Your task to perform on an android device: Check the weather Image 0: 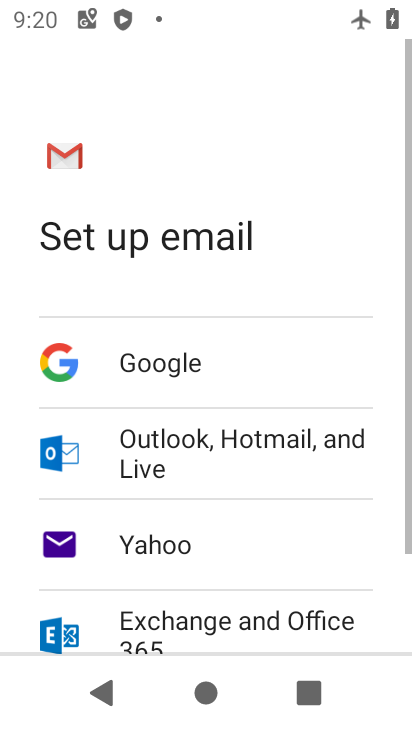
Step 0: press home button
Your task to perform on an android device: Check the weather Image 1: 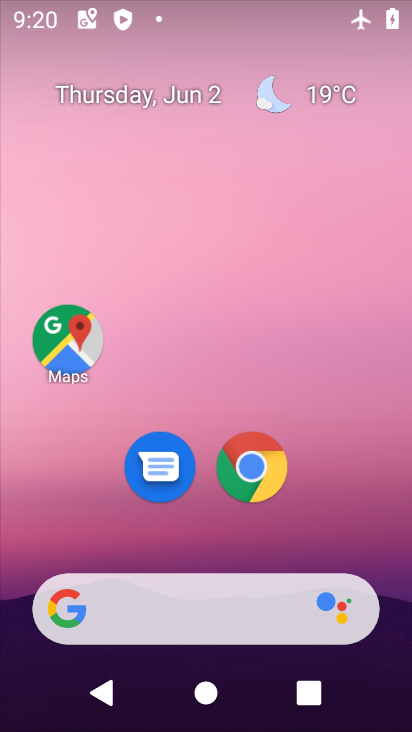
Step 1: drag from (205, 570) to (176, 116)
Your task to perform on an android device: Check the weather Image 2: 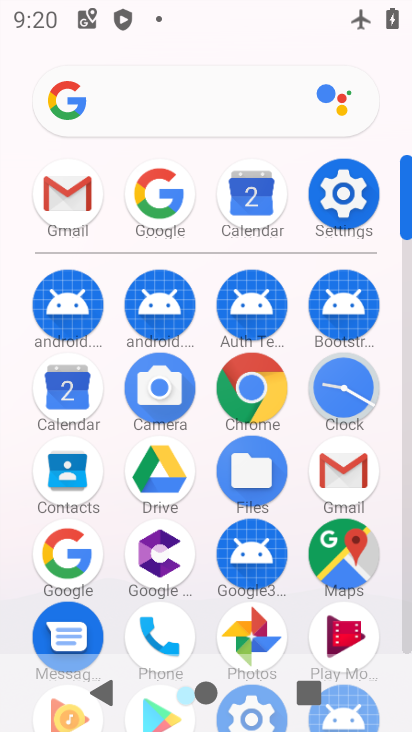
Step 2: click (79, 561)
Your task to perform on an android device: Check the weather Image 3: 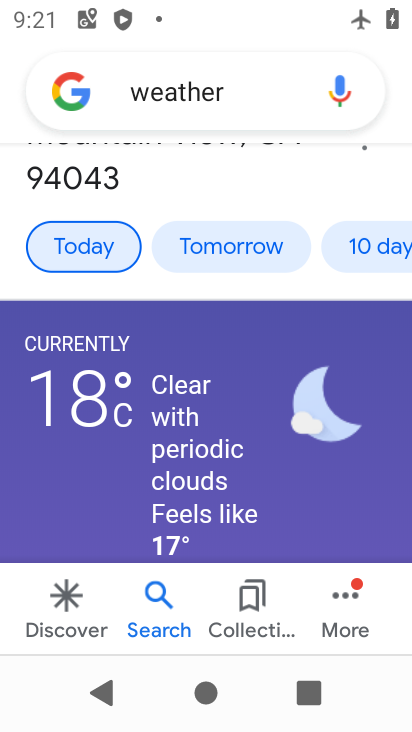
Step 3: task complete